Your task to perform on an android device: Open display settings Image 0: 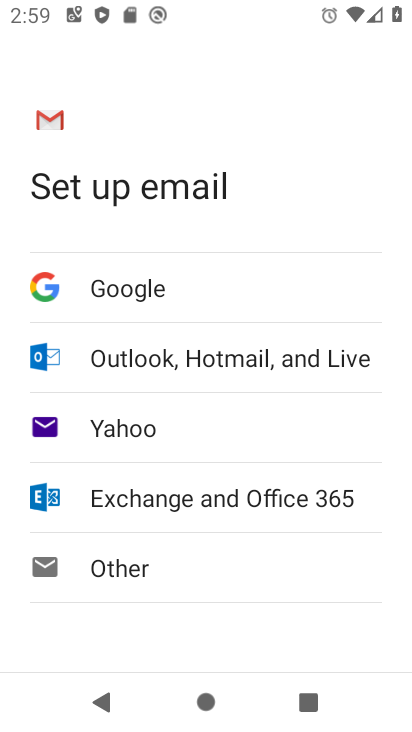
Step 0: press home button
Your task to perform on an android device: Open display settings Image 1: 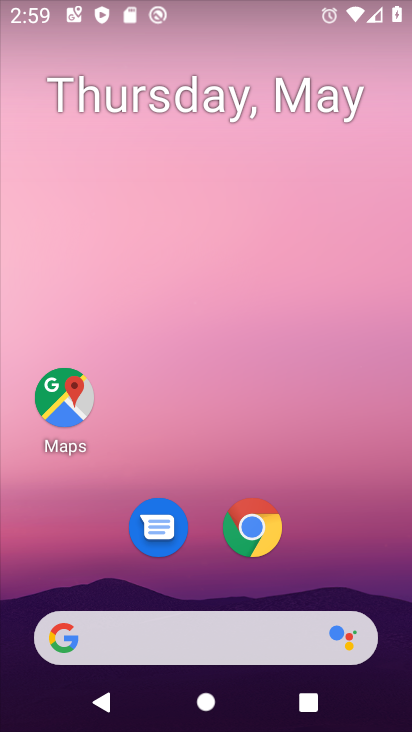
Step 1: drag from (86, 589) to (178, 125)
Your task to perform on an android device: Open display settings Image 2: 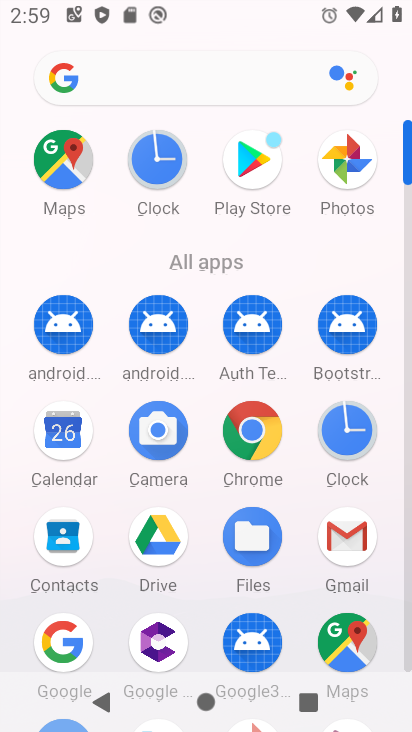
Step 2: drag from (175, 649) to (269, 324)
Your task to perform on an android device: Open display settings Image 3: 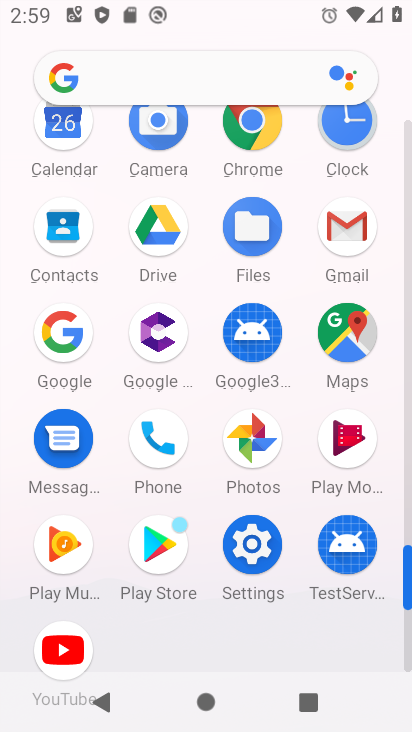
Step 3: click (247, 543)
Your task to perform on an android device: Open display settings Image 4: 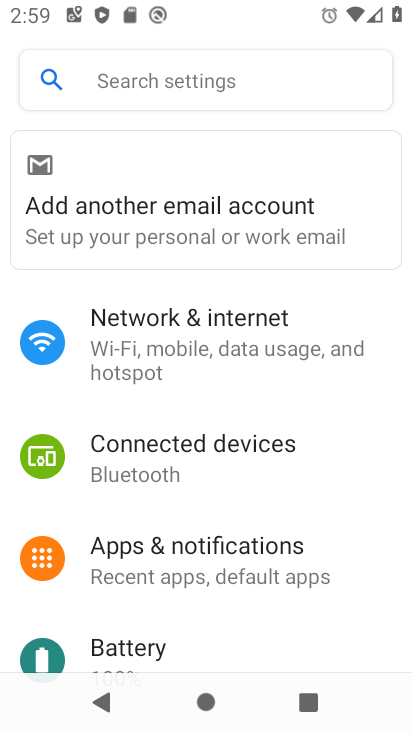
Step 4: drag from (183, 651) to (302, 299)
Your task to perform on an android device: Open display settings Image 5: 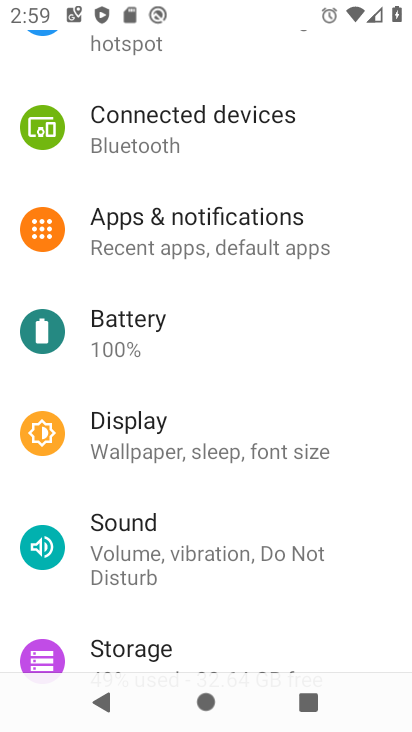
Step 5: click (186, 451)
Your task to perform on an android device: Open display settings Image 6: 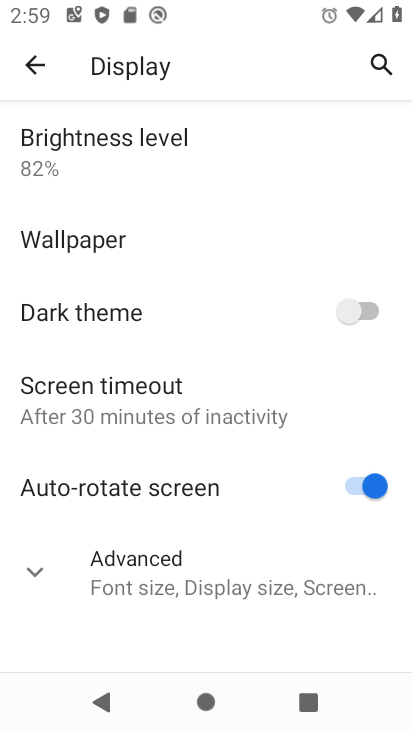
Step 6: task complete